Your task to perform on an android device: add a contact Image 0: 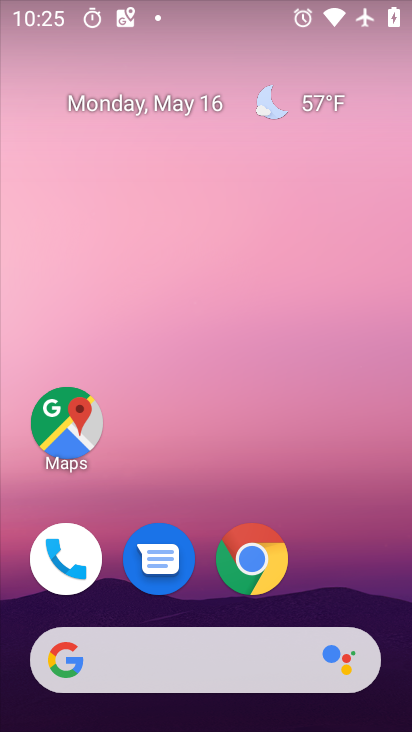
Step 0: drag from (337, 560) to (334, 152)
Your task to perform on an android device: add a contact Image 1: 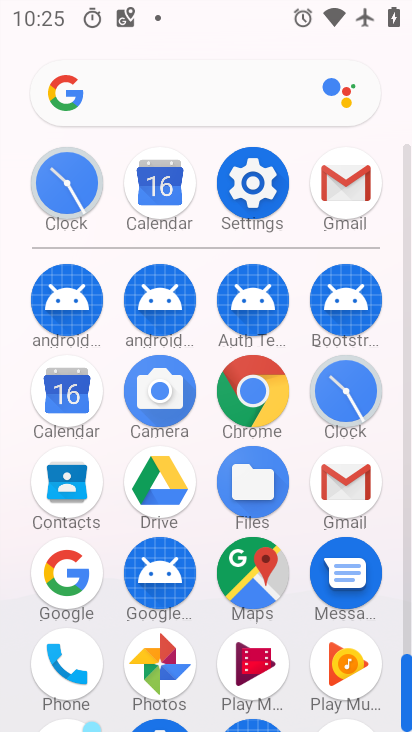
Step 1: click (70, 494)
Your task to perform on an android device: add a contact Image 2: 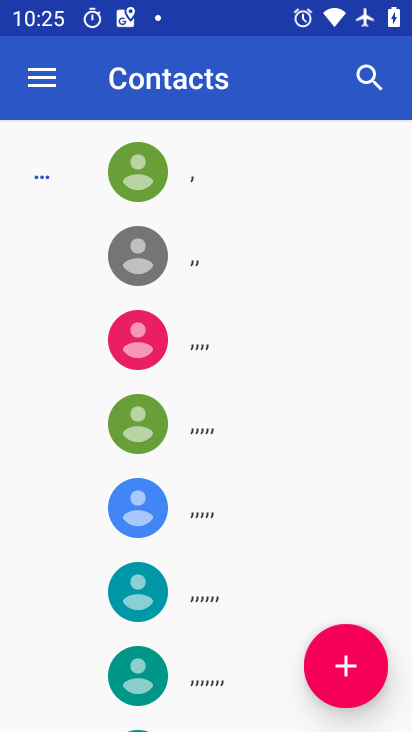
Step 2: click (354, 672)
Your task to perform on an android device: add a contact Image 3: 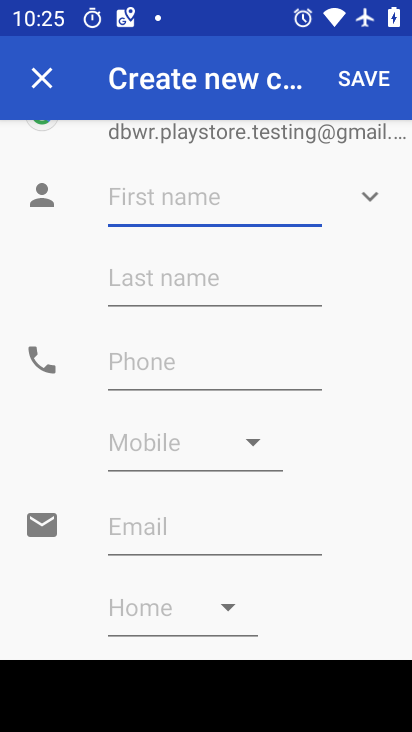
Step 3: type "host"
Your task to perform on an android device: add a contact Image 4: 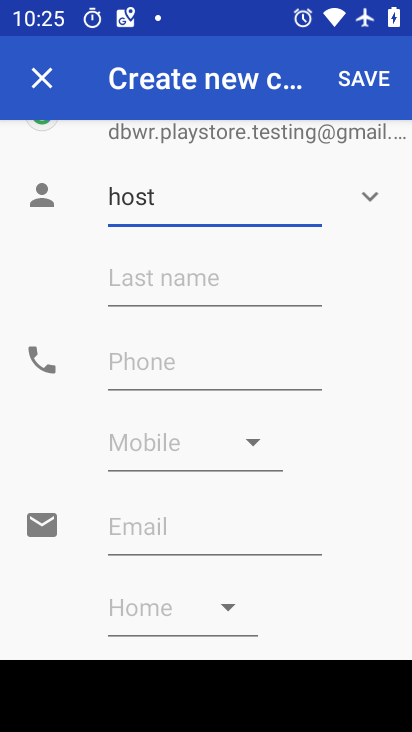
Step 4: click (359, 64)
Your task to perform on an android device: add a contact Image 5: 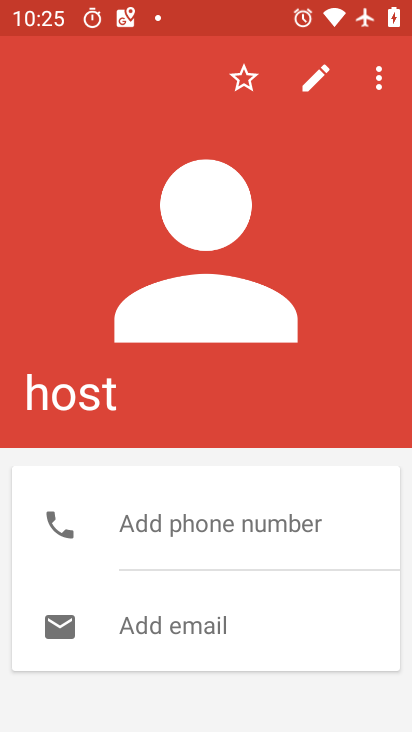
Step 5: task complete